Your task to perform on an android device: turn on javascript in the chrome app Image 0: 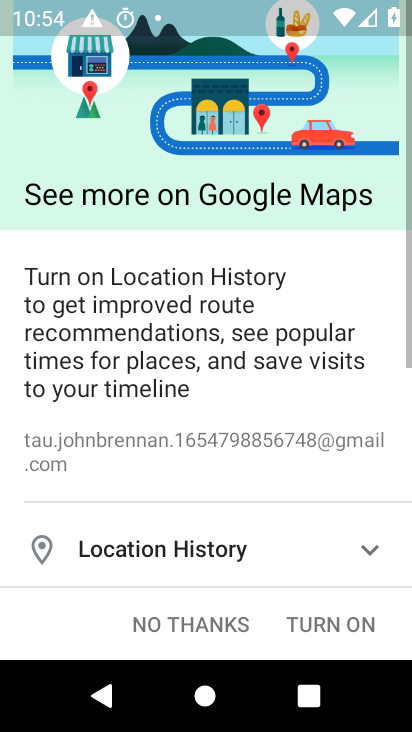
Step 0: press back button
Your task to perform on an android device: turn on javascript in the chrome app Image 1: 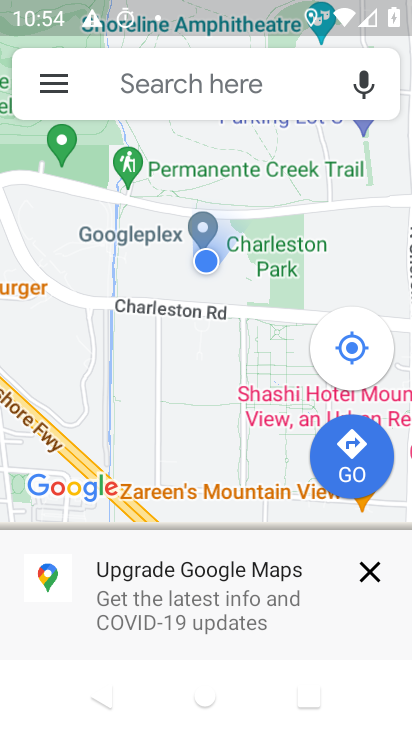
Step 1: press back button
Your task to perform on an android device: turn on javascript in the chrome app Image 2: 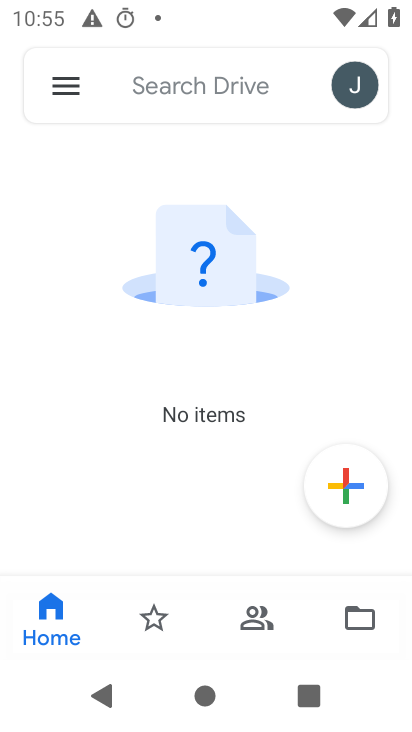
Step 2: press back button
Your task to perform on an android device: turn on javascript in the chrome app Image 3: 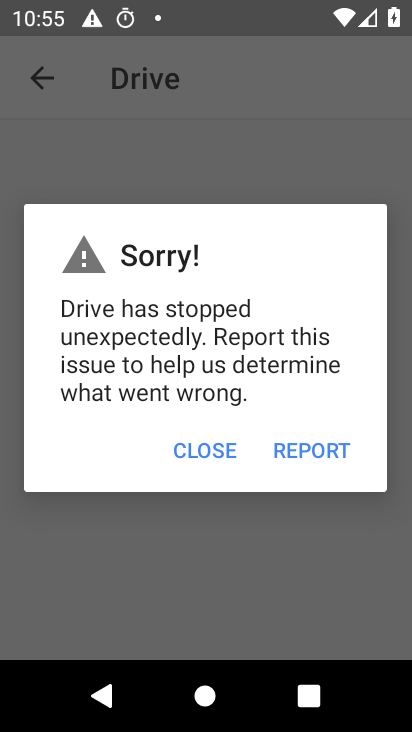
Step 3: press home button
Your task to perform on an android device: turn on javascript in the chrome app Image 4: 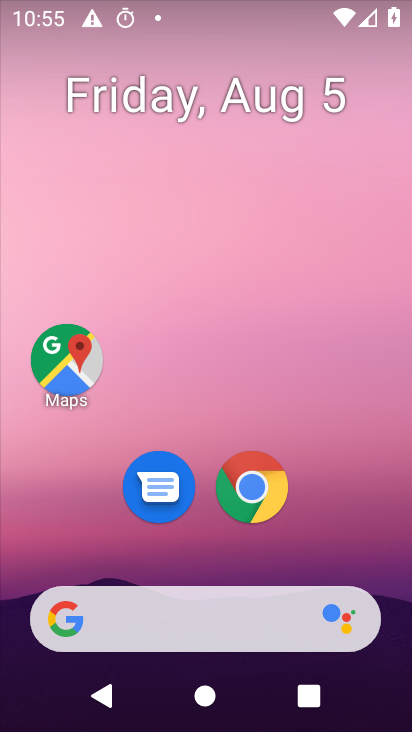
Step 4: click (255, 493)
Your task to perform on an android device: turn on javascript in the chrome app Image 5: 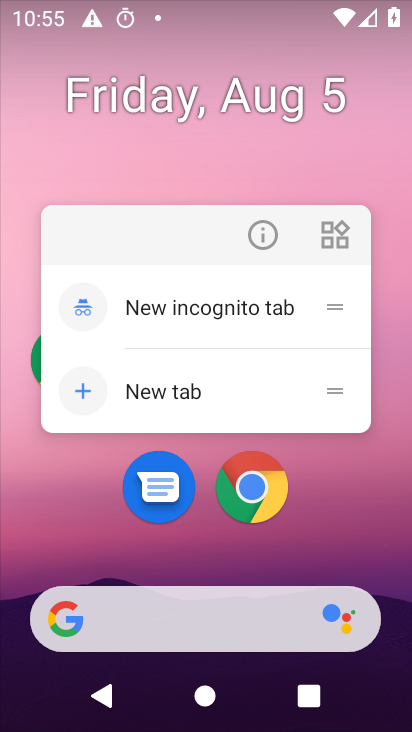
Step 5: click (256, 492)
Your task to perform on an android device: turn on javascript in the chrome app Image 6: 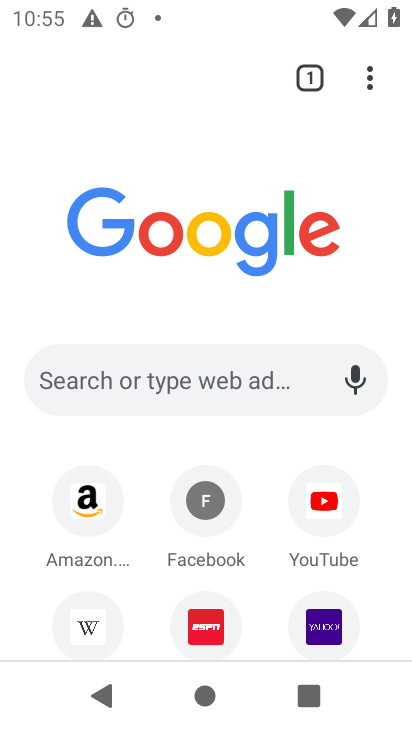
Step 6: drag from (367, 71) to (117, 544)
Your task to perform on an android device: turn on javascript in the chrome app Image 7: 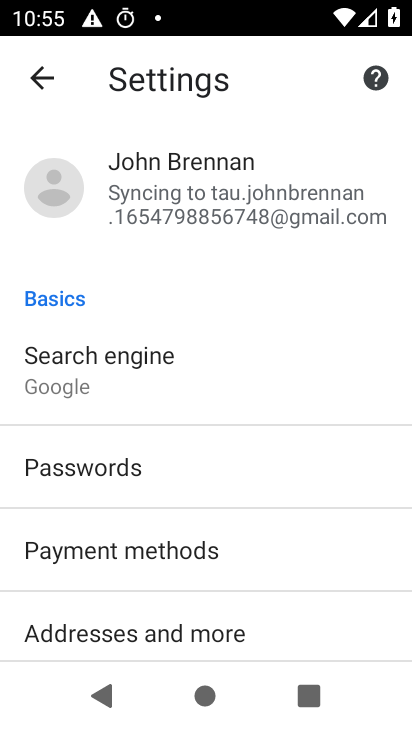
Step 7: drag from (161, 578) to (329, 29)
Your task to perform on an android device: turn on javascript in the chrome app Image 8: 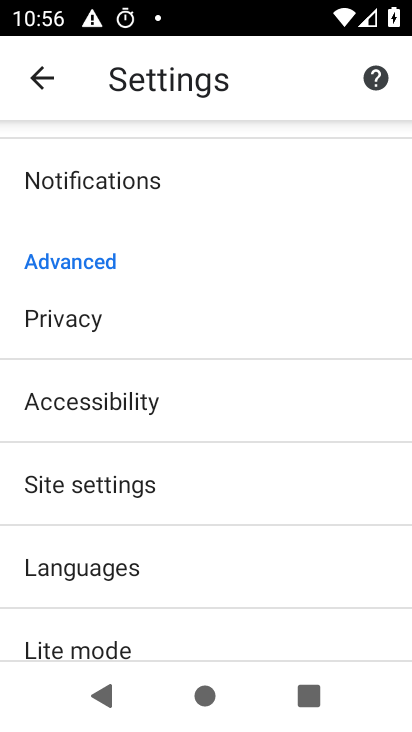
Step 8: click (121, 488)
Your task to perform on an android device: turn on javascript in the chrome app Image 9: 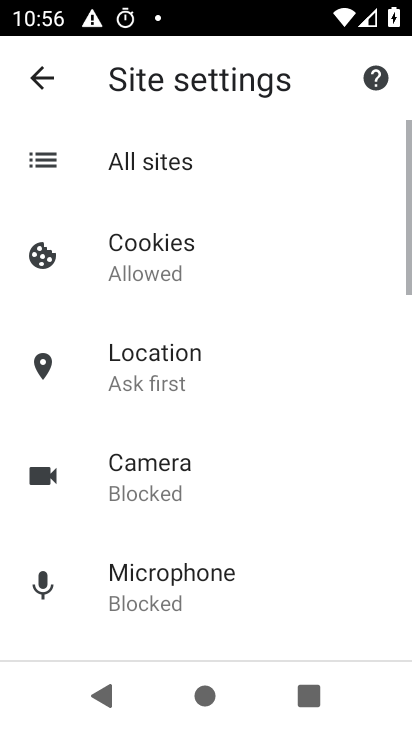
Step 9: drag from (154, 596) to (272, 35)
Your task to perform on an android device: turn on javascript in the chrome app Image 10: 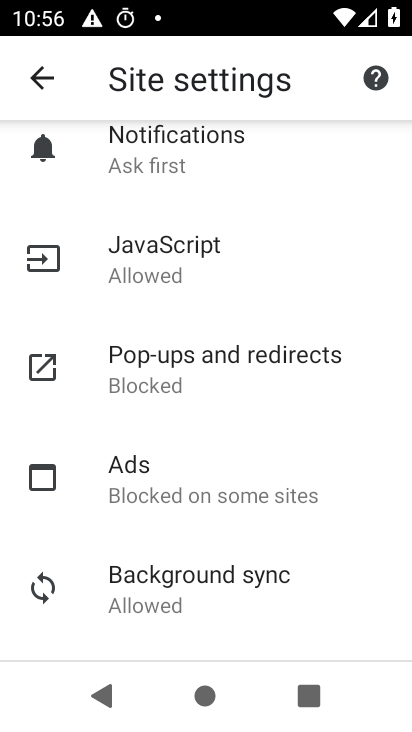
Step 10: click (157, 260)
Your task to perform on an android device: turn on javascript in the chrome app Image 11: 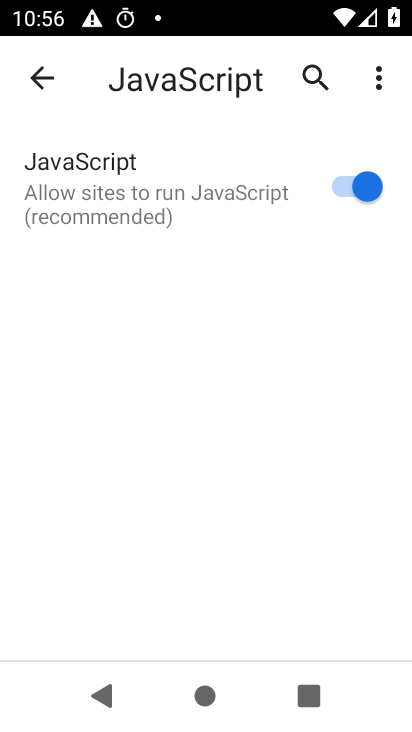
Step 11: task complete